Your task to perform on an android device: allow cookies in the chrome app Image 0: 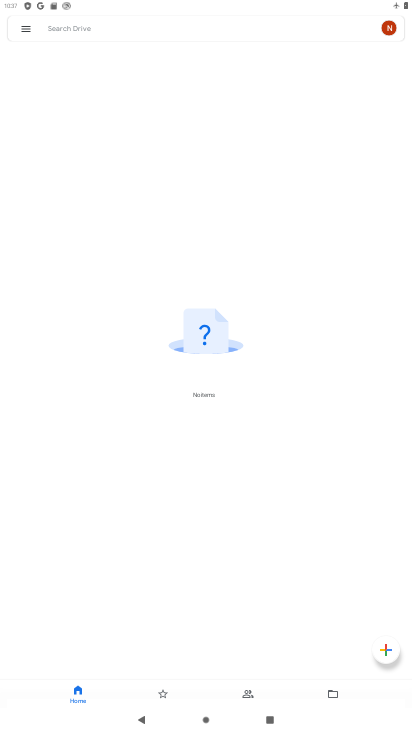
Step 0: press home button
Your task to perform on an android device: allow cookies in the chrome app Image 1: 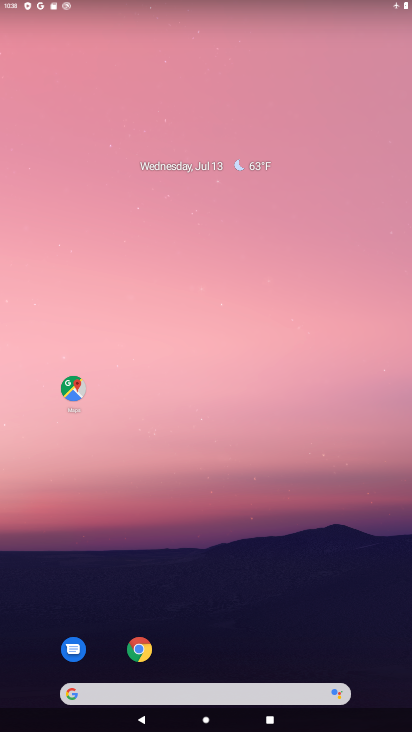
Step 1: drag from (178, 592) to (202, 159)
Your task to perform on an android device: allow cookies in the chrome app Image 2: 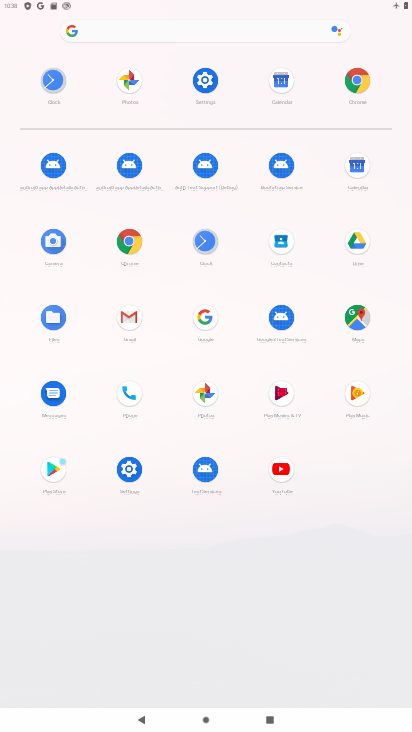
Step 2: click (350, 78)
Your task to perform on an android device: allow cookies in the chrome app Image 3: 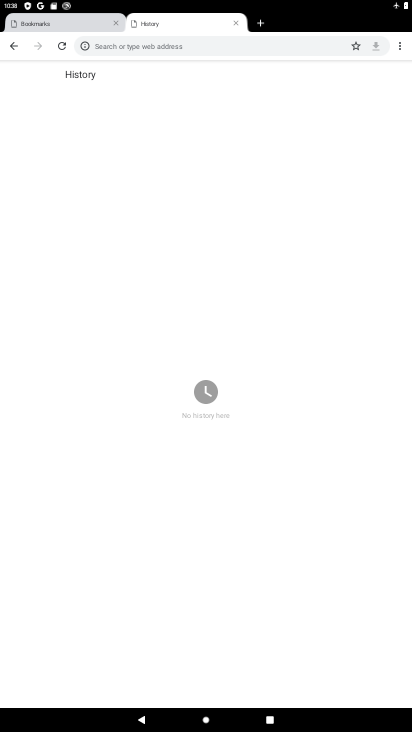
Step 3: click (403, 42)
Your task to perform on an android device: allow cookies in the chrome app Image 4: 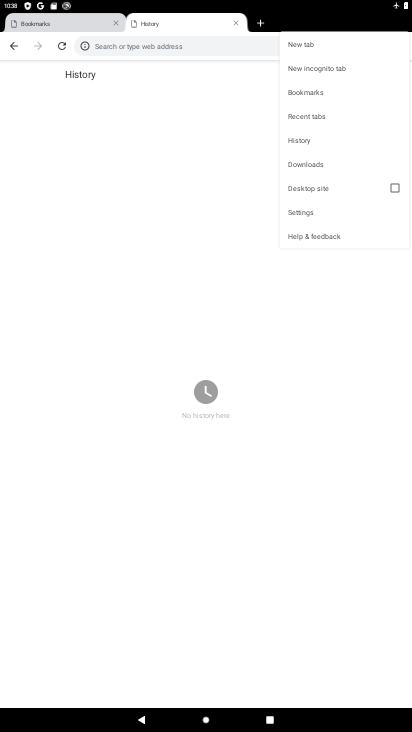
Step 4: click (296, 212)
Your task to perform on an android device: allow cookies in the chrome app Image 5: 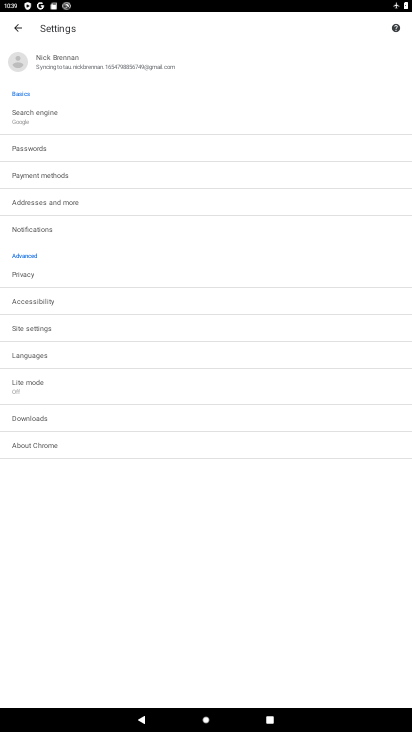
Step 5: click (38, 323)
Your task to perform on an android device: allow cookies in the chrome app Image 6: 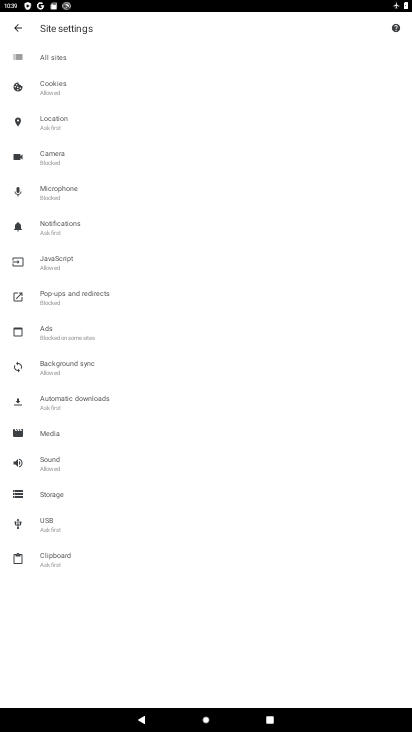
Step 6: click (41, 92)
Your task to perform on an android device: allow cookies in the chrome app Image 7: 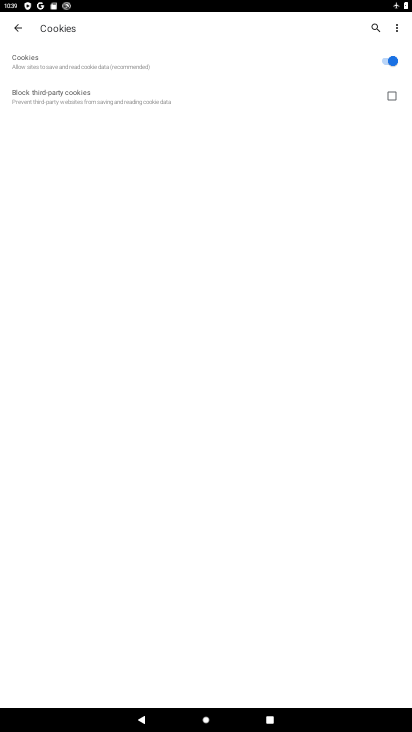
Step 7: task complete